Your task to perform on an android device: Go to privacy settings Image 0: 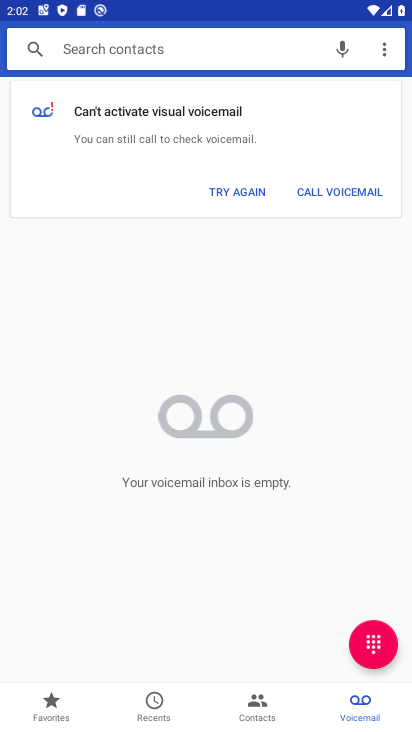
Step 0: press home button
Your task to perform on an android device: Go to privacy settings Image 1: 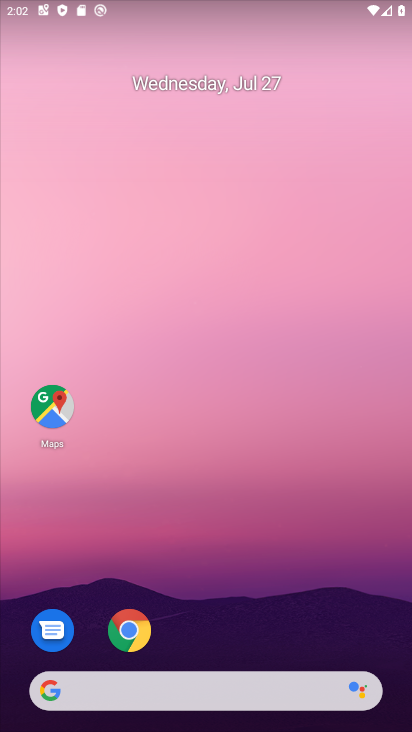
Step 1: drag from (374, 634) to (355, 158)
Your task to perform on an android device: Go to privacy settings Image 2: 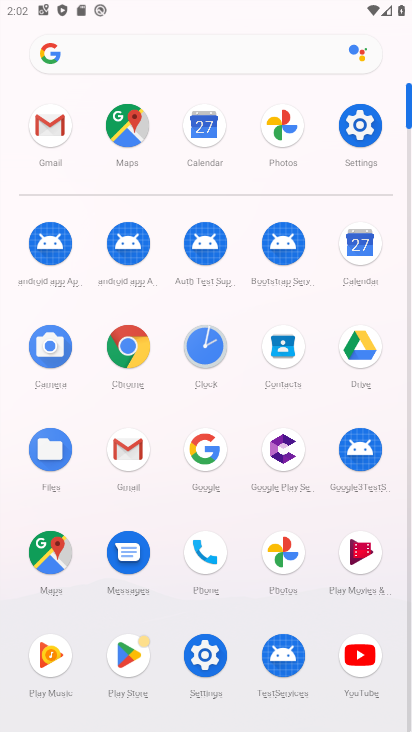
Step 2: click (207, 654)
Your task to perform on an android device: Go to privacy settings Image 3: 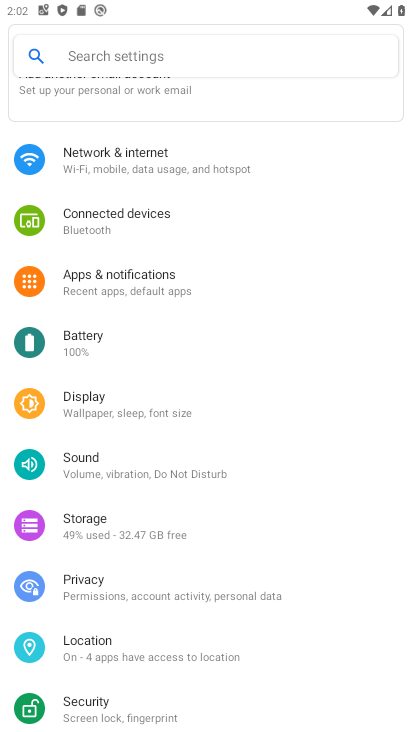
Step 3: drag from (295, 623) to (309, 264)
Your task to perform on an android device: Go to privacy settings Image 4: 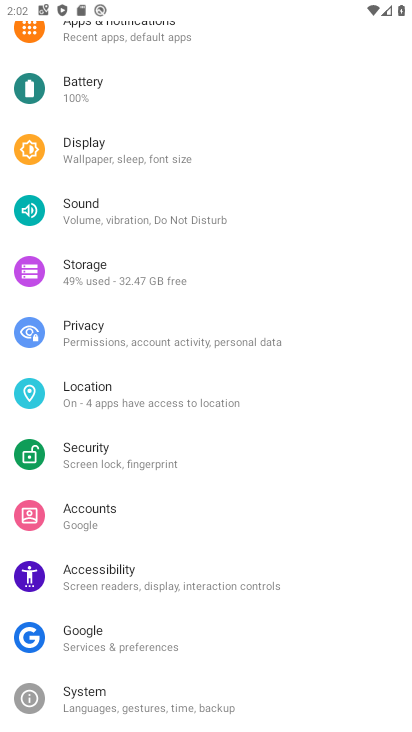
Step 4: click (86, 329)
Your task to perform on an android device: Go to privacy settings Image 5: 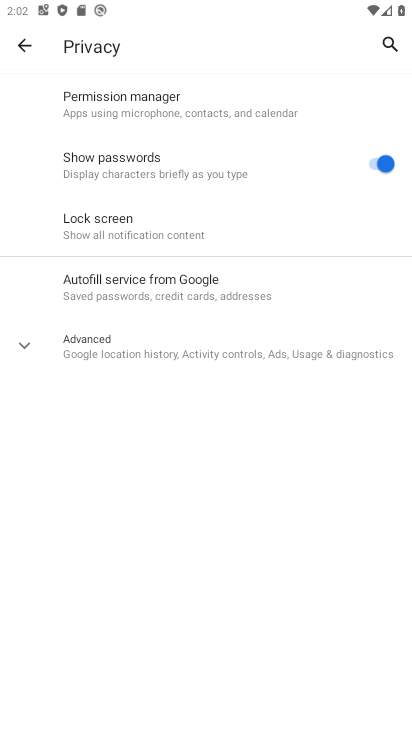
Step 5: click (22, 344)
Your task to perform on an android device: Go to privacy settings Image 6: 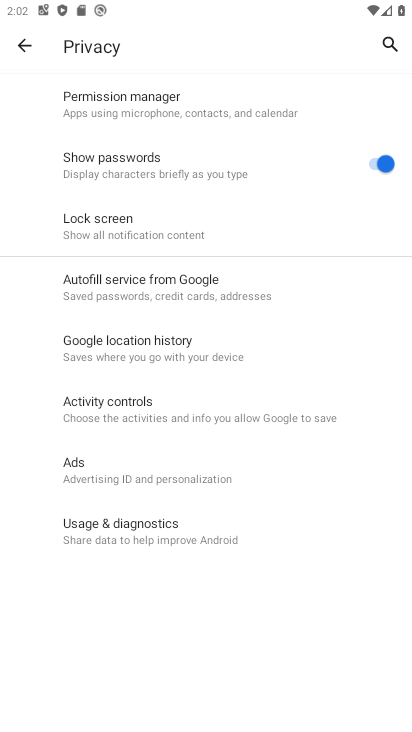
Step 6: task complete